Your task to perform on an android device: search for starred emails in the gmail app Image 0: 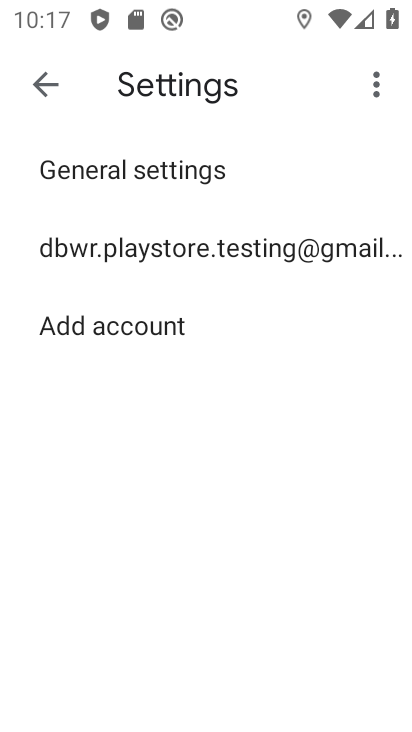
Step 0: press home button
Your task to perform on an android device: search for starred emails in the gmail app Image 1: 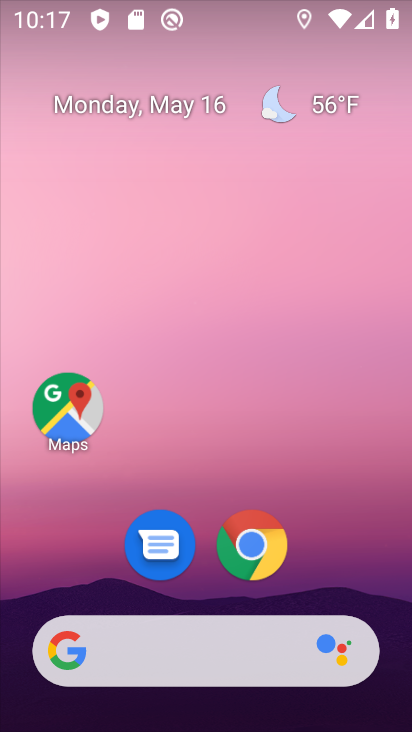
Step 1: drag from (205, 608) to (116, 20)
Your task to perform on an android device: search for starred emails in the gmail app Image 2: 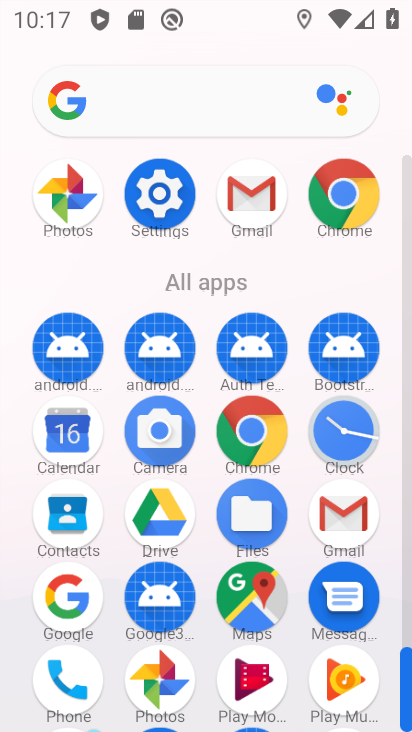
Step 2: click (360, 513)
Your task to perform on an android device: search for starred emails in the gmail app Image 3: 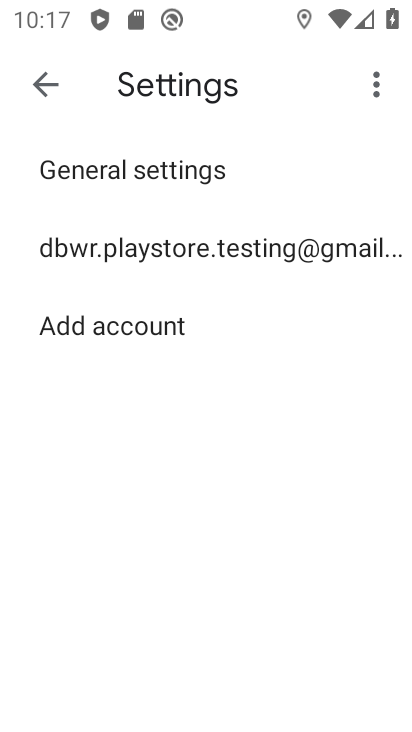
Step 3: click (59, 79)
Your task to perform on an android device: search for starred emails in the gmail app Image 4: 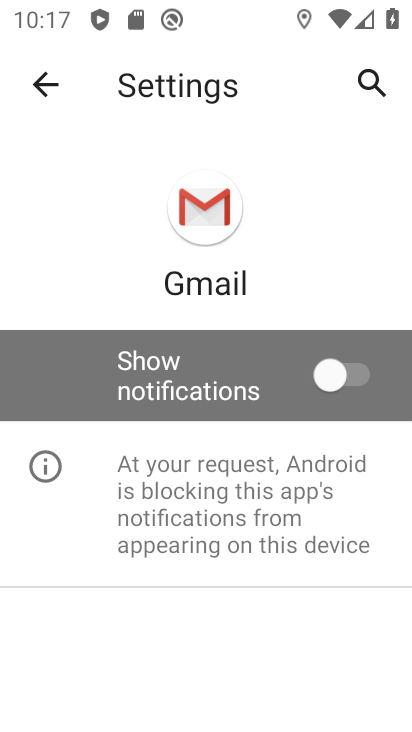
Step 4: click (55, 84)
Your task to perform on an android device: search for starred emails in the gmail app Image 5: 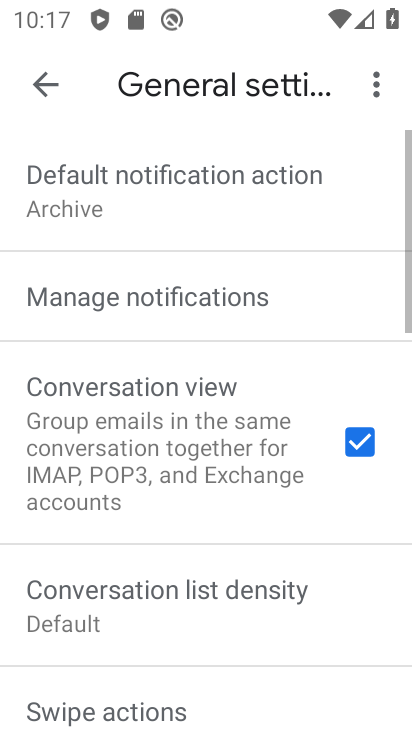
Step 5: click (55, 84)
Your task to perform on an android device: search for starred emails in the gmail app Image 6: 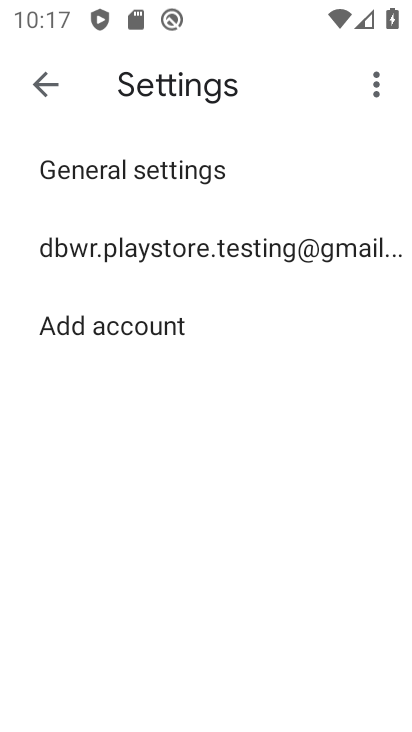
Step 6: click (54, 83)
Your task to perform on an android device: search for starred emails in the gmail app Image 7: 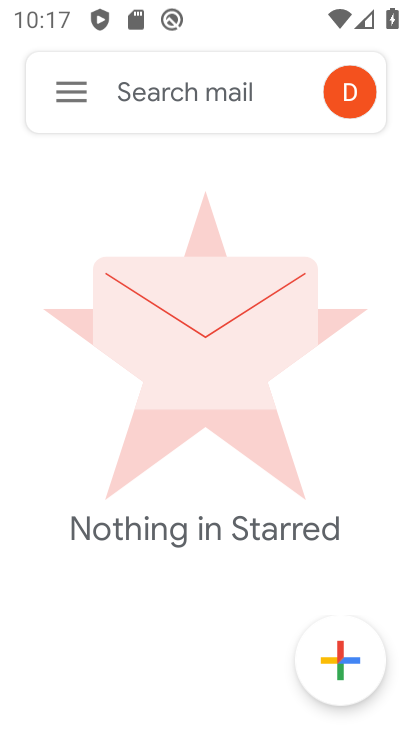
Step 7: click (54, 83)
Your task to perform on an android device: search for starred emails in the gmail app Image 8: 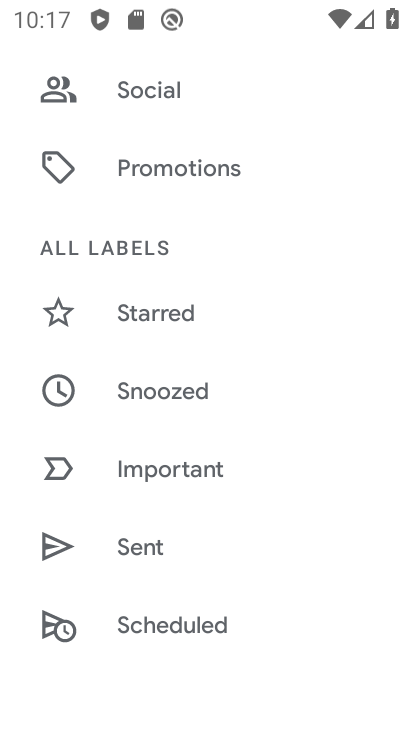
Step 8: click (130, 284)
Your task to perform on an android device: search for starred emails in the gmail app Image 9: 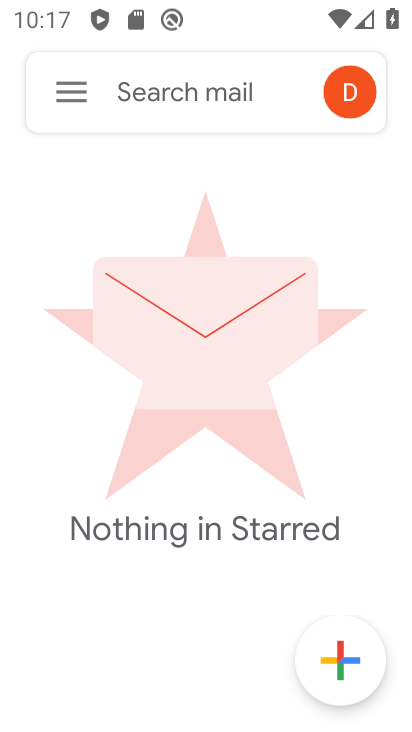
Step 9: task complete